Your task to perform on an android device: turn off priority inbox in the gmail app Image 0: 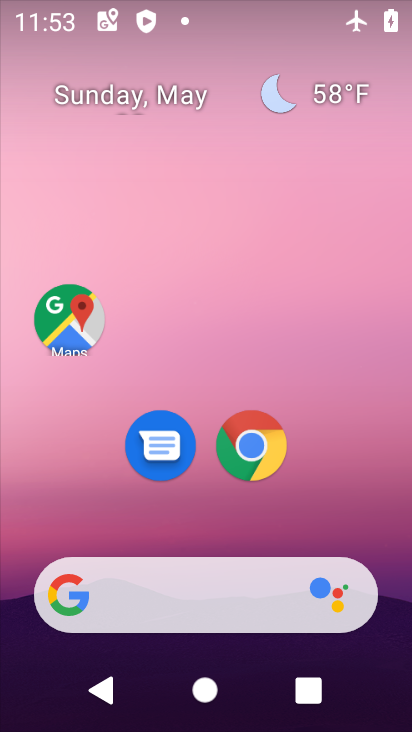
Step 0: drag from (200, 433) to (200, 100)
Your task to perform on an android device: turn off priority inbox in the gmail app Image 1: 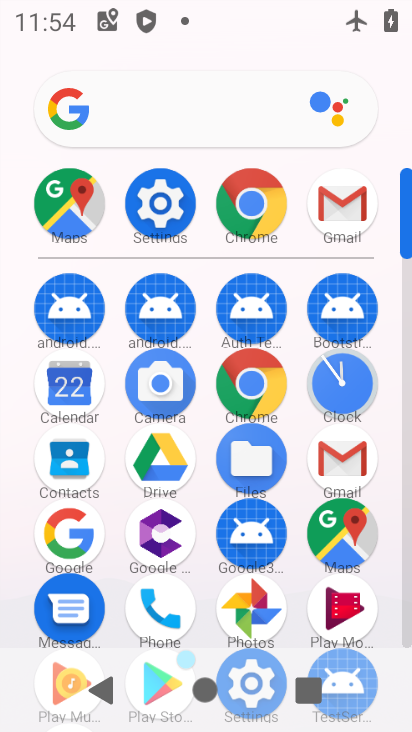
Step 1: click (336, 450)
Your task to perform on an android device: turn off priority inbox in the gmail app Image 2: 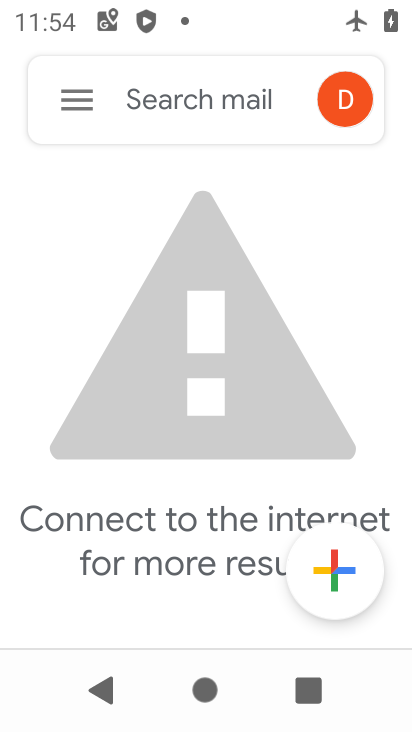
Step 2: press home button
Your task to perform on an android device: turn off priority inbox in the gmail app Image 3: 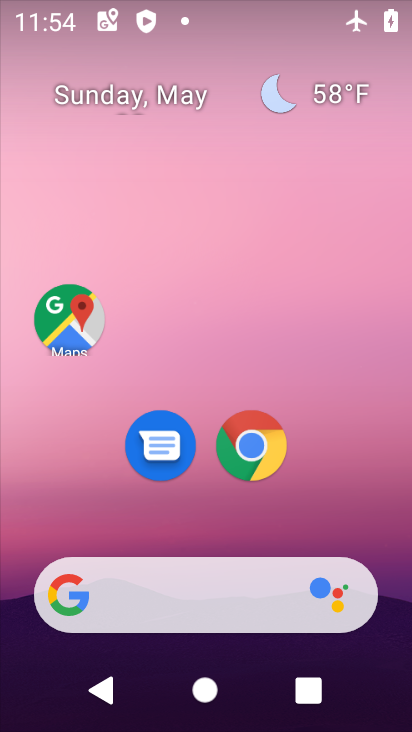
Step 3: drag from (209, 518) to (198, 94)
Your task to perform on an android device: turn off priority inbox in the gmail app Image 4: 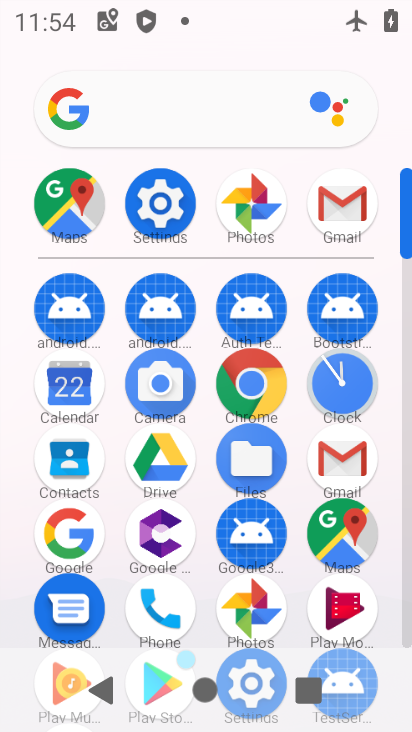
Step 4: click (343, 189)
Your task to perform on an android device: turn off priority inbox in the gmail app Image 5: 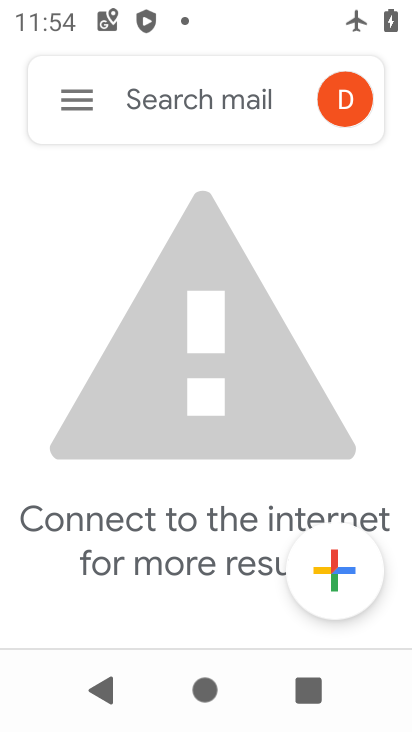
Step 5: click (71, 95)
Your task to perform on an android device: turn off priority inbox in the gmail app Image 6: 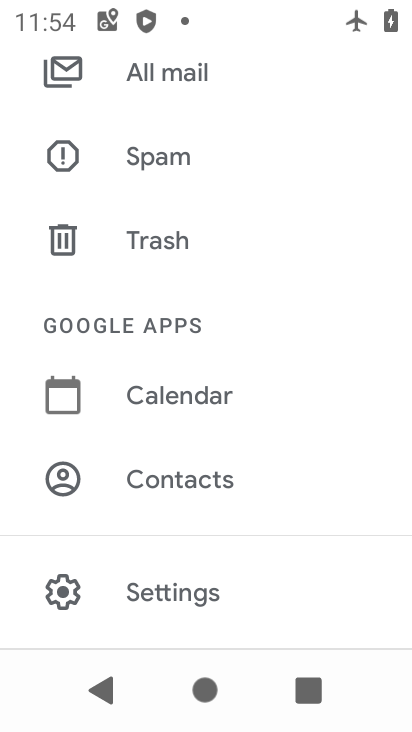
Step 6: click (109, 585)
Your task to perform on an android device: turn off priority inbox in the gmail app Image 7: 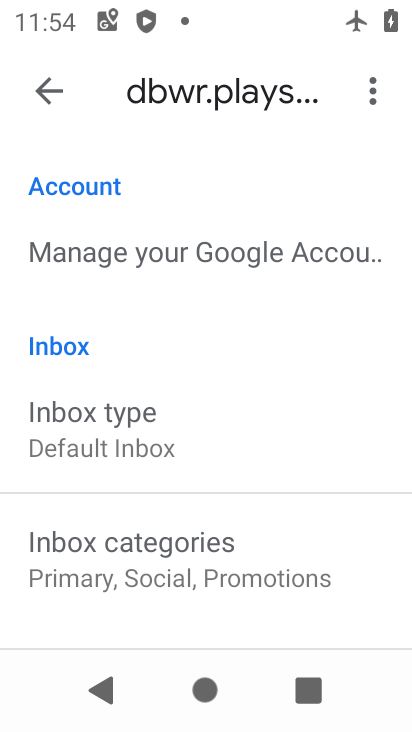
Step 7: click (195, 428)
Your task to perform on an android device: turn off priority inbox in the gmail app Image 8: 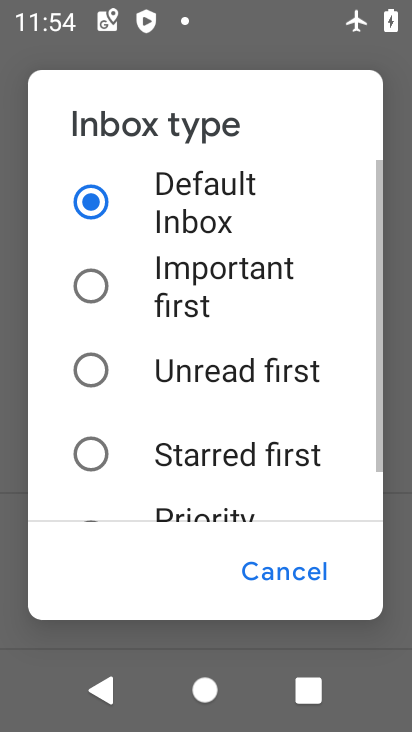
Step 8: drag from (171, 464) to (199, 194)
Your task to perform on an android device: turn off priority inbox in the gmail app Image 9: 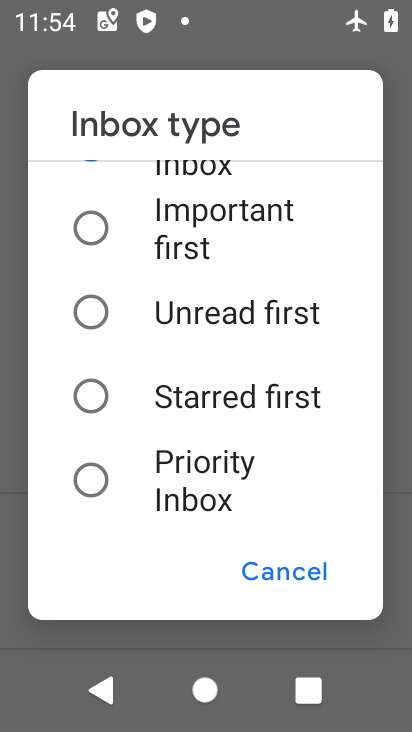
Step 9: click (94, 477)
Your task to perform on an android device: turn off priority inbox in the gmail app Image 10: 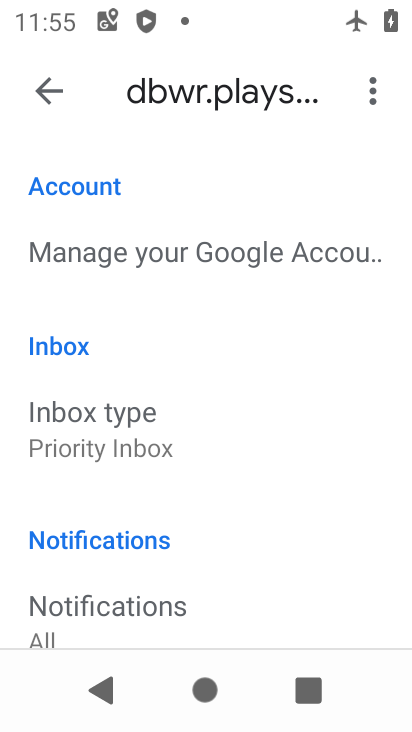
Step 10: click (211, 410)
Your task to perform on an android device: turn off priority inbox in the gmail app Image 11: 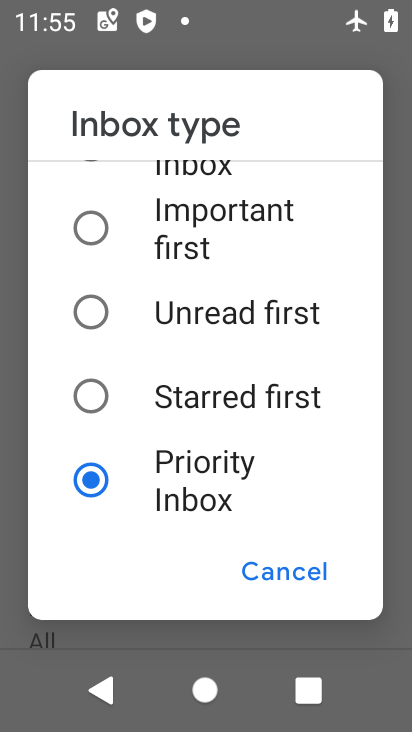
Step 11: click (87, 314)
Your task to perform on an android device: turn off priority inbox in the gmail app Image 12: 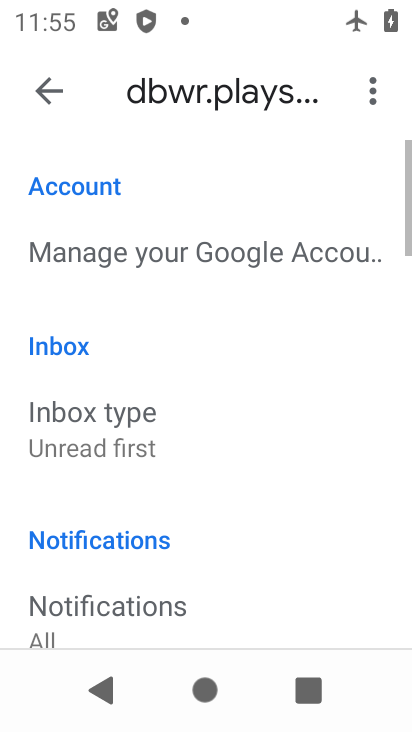
Step 12: task complete